Your task to perform on an android device: set the timer Image 0: 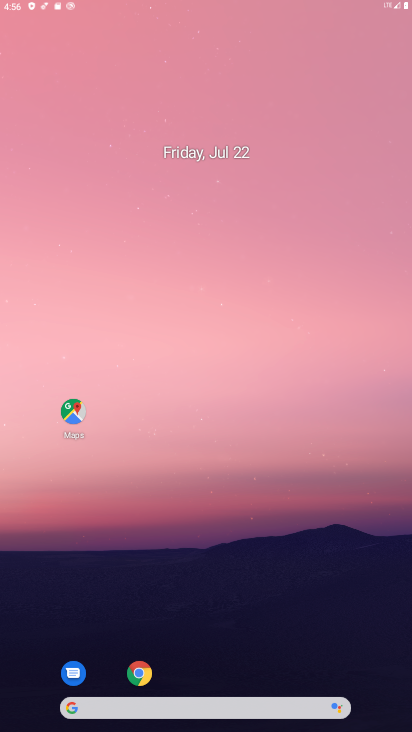
Step 0: press home button
Your task to perform on an android device: set the timer Image 1: 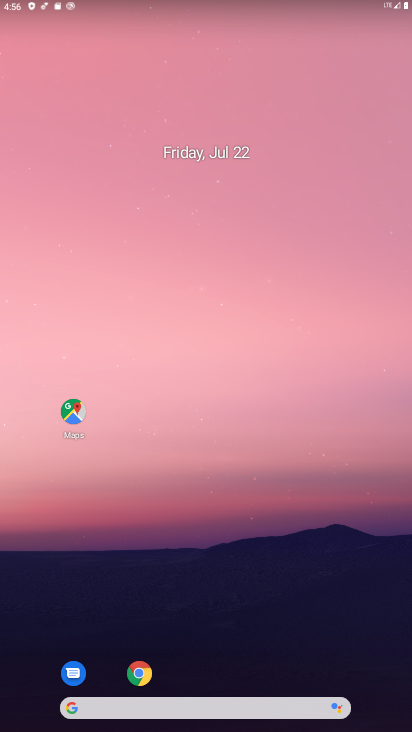
Step 1: drag from (304, 620) to (306, 32)
Your task to perform on an android device: set the timer Image 2: 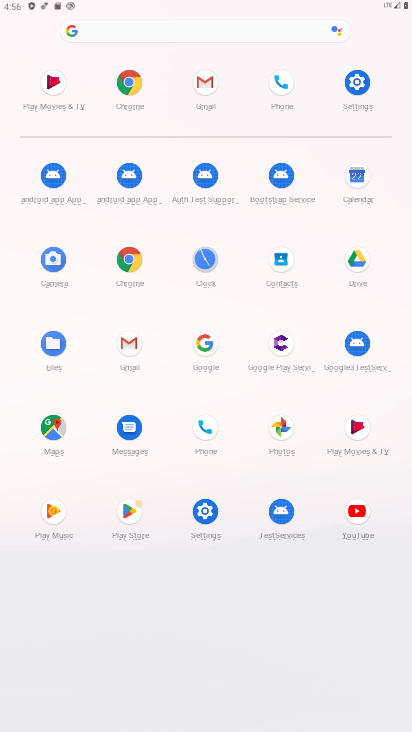
Step 2: click (205, 259)
Your task to perform on an android device: set the timer Image 3: 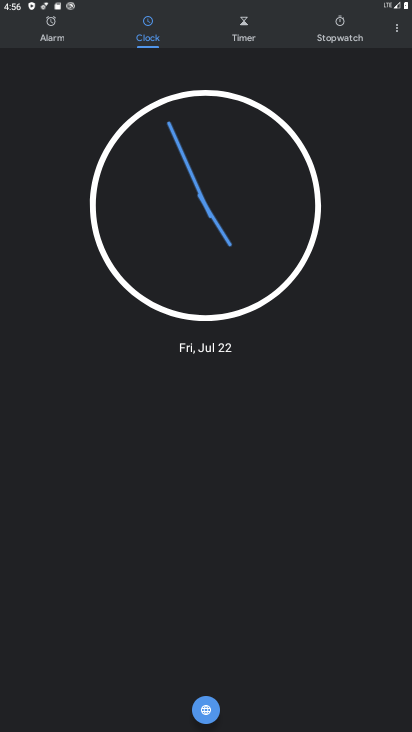
Step 3: click (245, 34)
Your task to perform on an android device: set the timer Image 4: 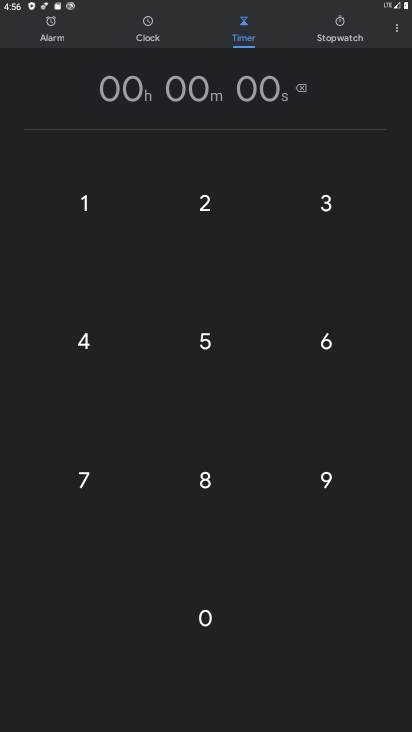
Step 4: click (191, 203)
Your task to perform on an android device: set the timer Image 5: 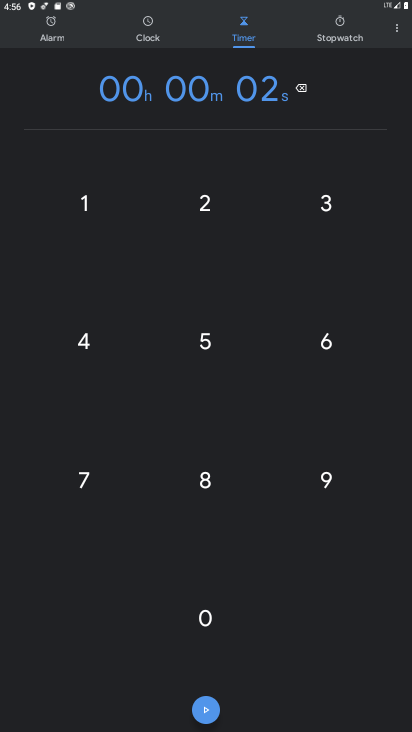
Step 5: click (87, 204)
Your task to perform on an android device: set the timer Image 6: 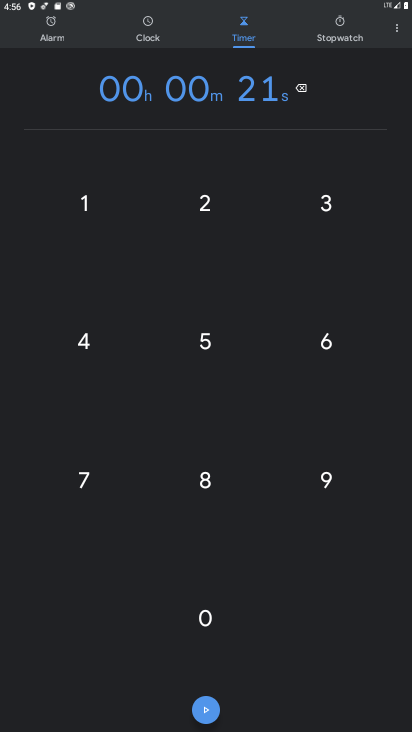
Step 6: click (212, 349)
Your task to perform on an android device: set the timer Image 7: 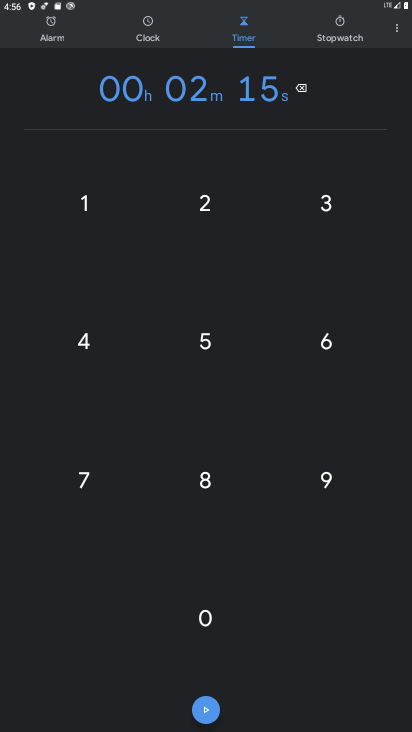
Step 7: click (89, 199)
Your task to perform on an android device: set the timer Image 8: 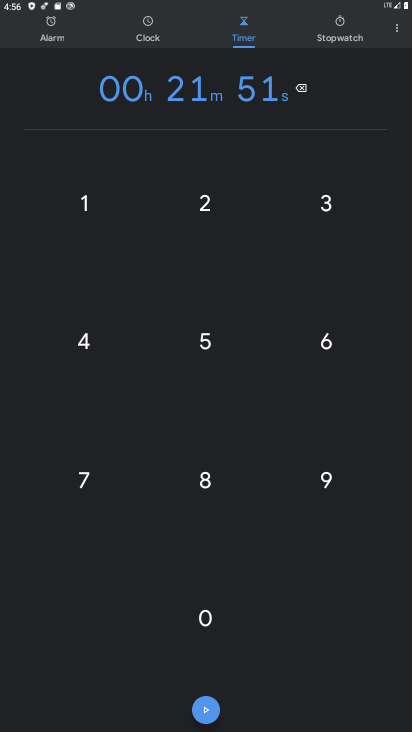
Step 8: click (338, 352)
Your task to perform on an android device: set the timer Image 9: 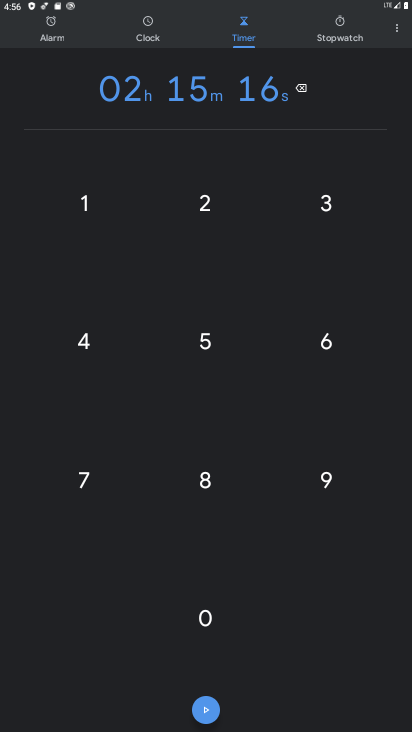
Step 9: click (79, 485)
Your task to perform on an android device: set the timer Image 10: 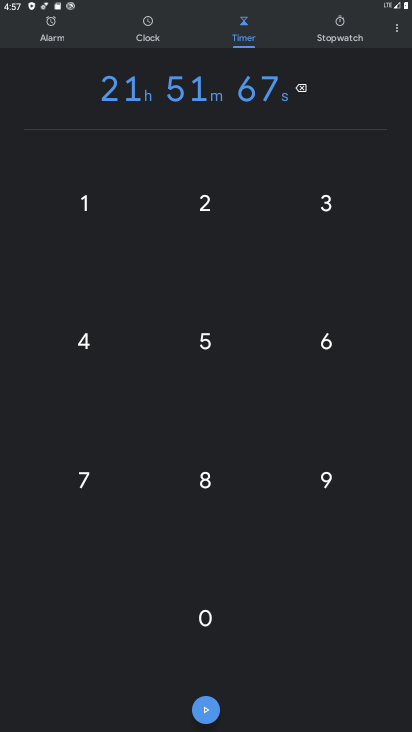
Step 10: click (208, 713)
Your task to perform on an android device: set the timer Image 11: 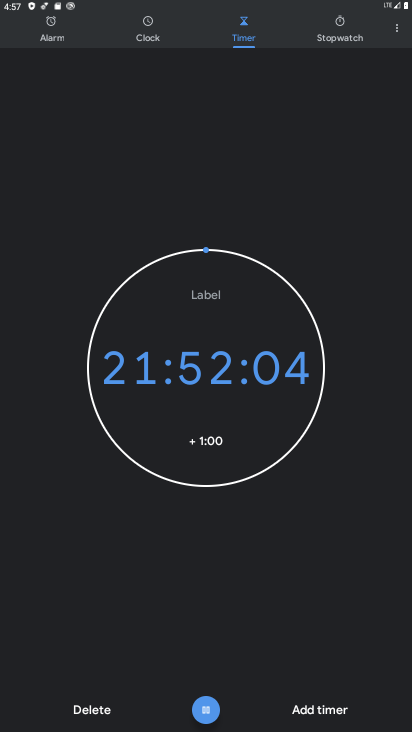
Step 11: task complete